Your task to perform on an android device: toggle data saver in the chrome app Image 0: 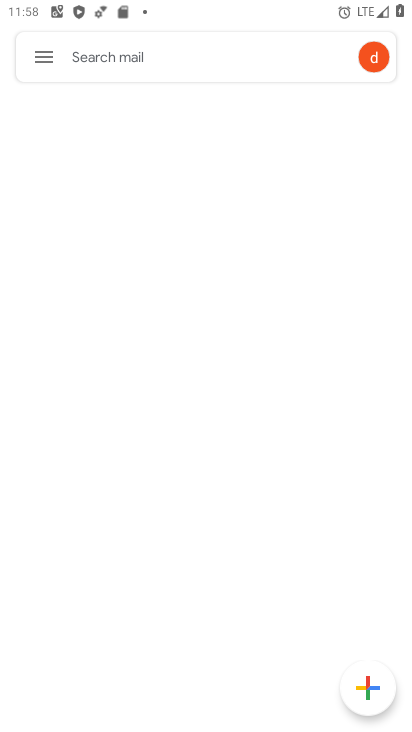
Step 0: press home button
Your task to perform on an android device: toggle data saver in the chrome app Image 1: 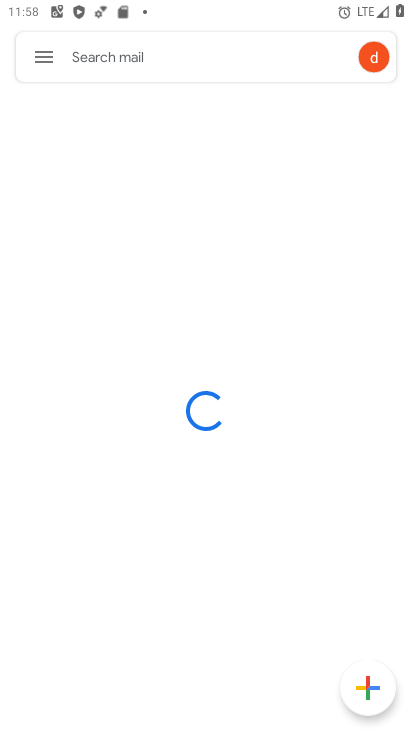
Step 1: press home button
Your task to perform on an android device: toggle data saver in the chrome app Image 2: 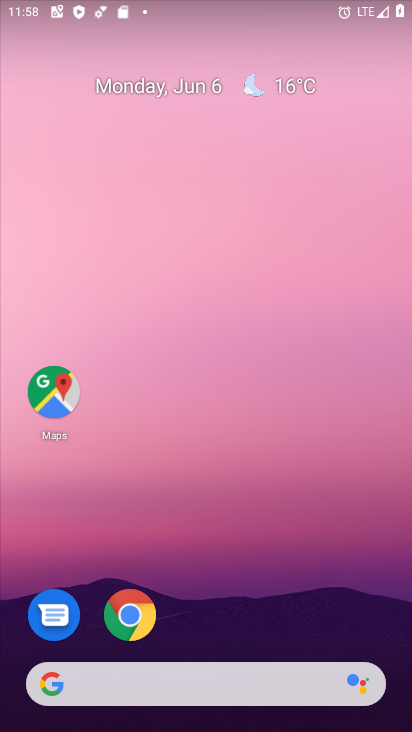
Step 2: click (126, 609)
Your task to perform on an android device: toggle data saver in the chrome app Image 3: 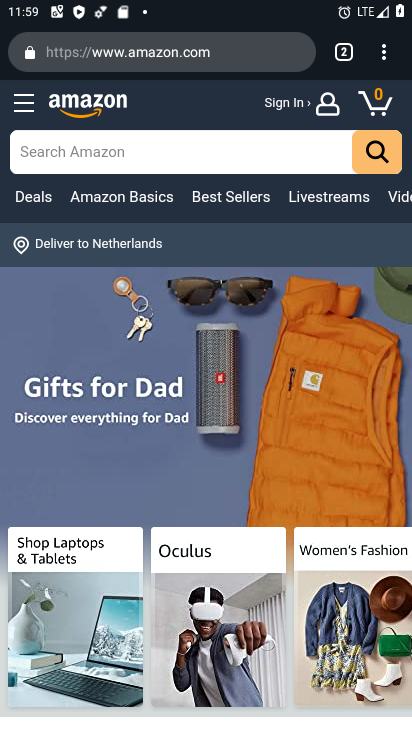
Step 3: click (384, 42)
Your task to perform on an android device: toggle data saver in the chrome app Image 4: 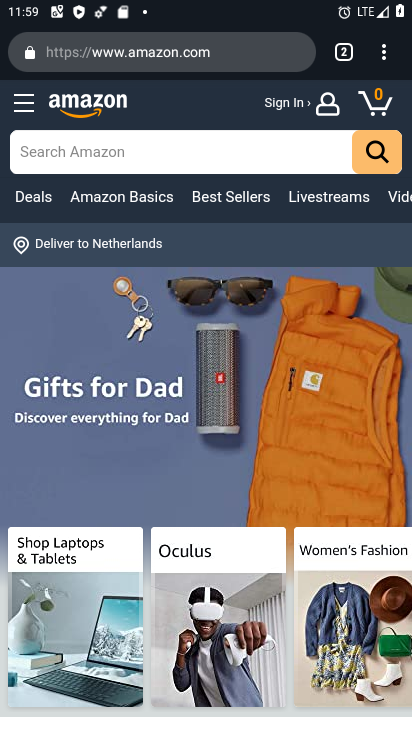
Step 4: click (384, 53)
Your task to perform on an android device: toggle data saver in the chrome app Image 5: 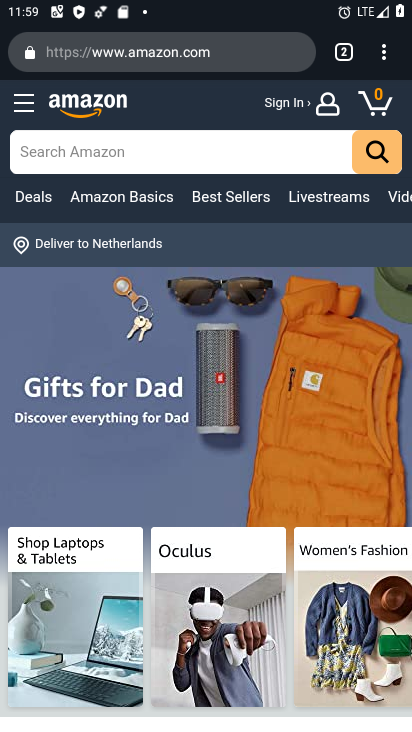
Step 5: click (380, 51)
Your task to perform on an android device: toggle data saver in the chrome app Image 6: 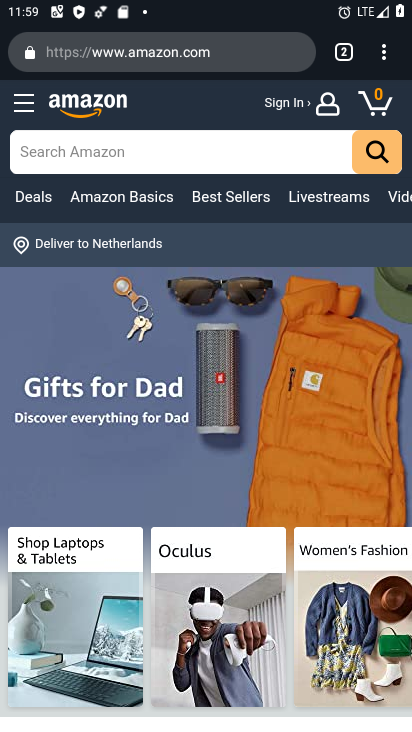
Step 6: click (387, 46)
Your task to perform on an android device: toggle data saver in the chrome app Image 7: 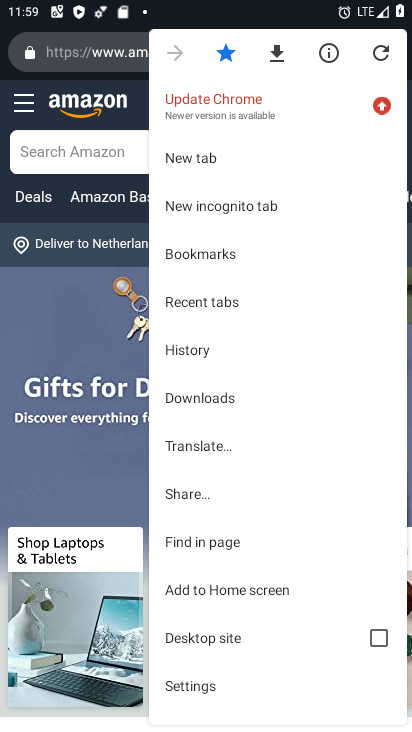
Step 7: drag from (228, 680) to (277, 187)
Your task to perform on an android device: toggle data saver in the chrome app Image 8: 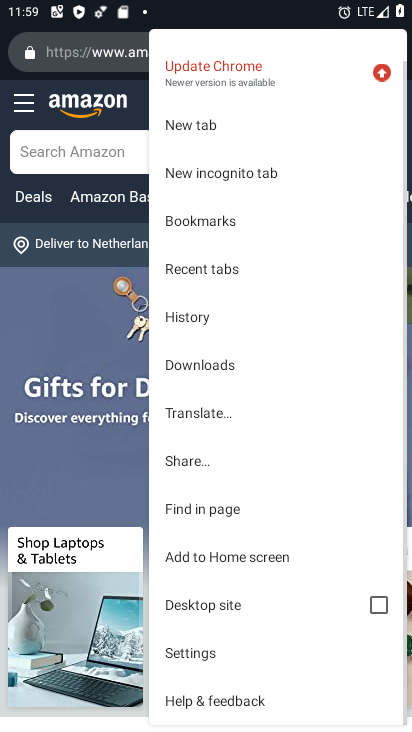
Step 8: click (229, 648)
Your task to perform on an android device: toggle data saver in the chrome app Image 9: 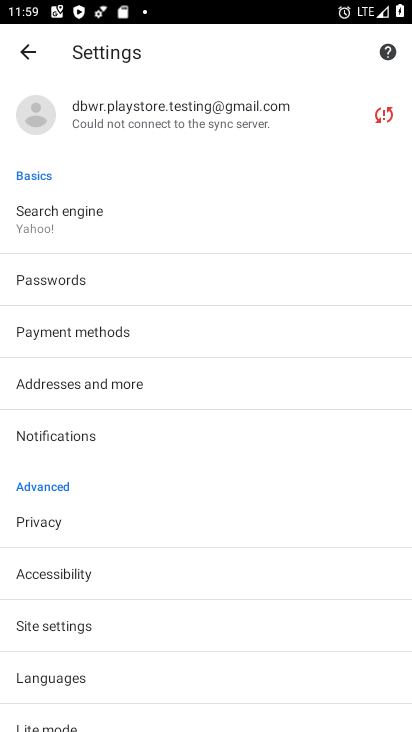
Step 9: click (115, 716)
Your task to perform on an android device: toggle data saver in the chrome app Image 10: 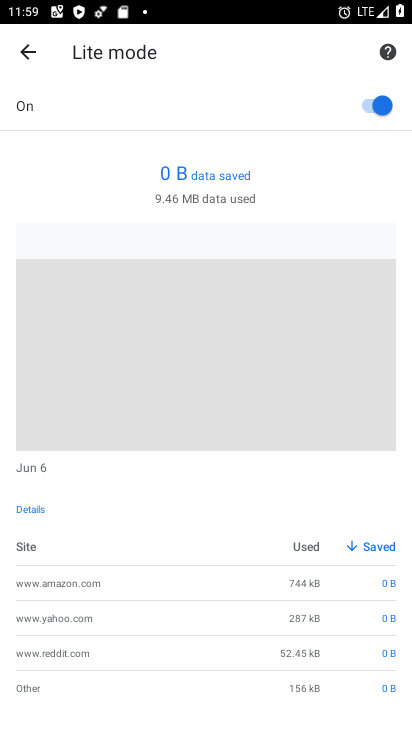
Step 10: click (371, 98)
Your task to perform on an android device: toggle data saver in the chrome app Image 11: 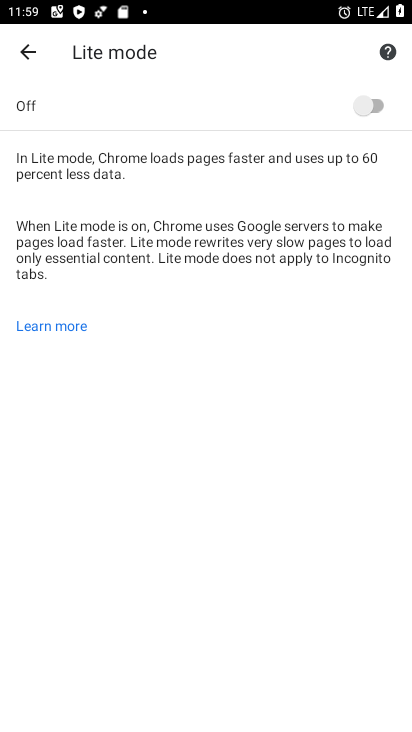
Step 11: task complete